Your task to perform on an android device: see tabs open on other devices in the chrome app Image 0: 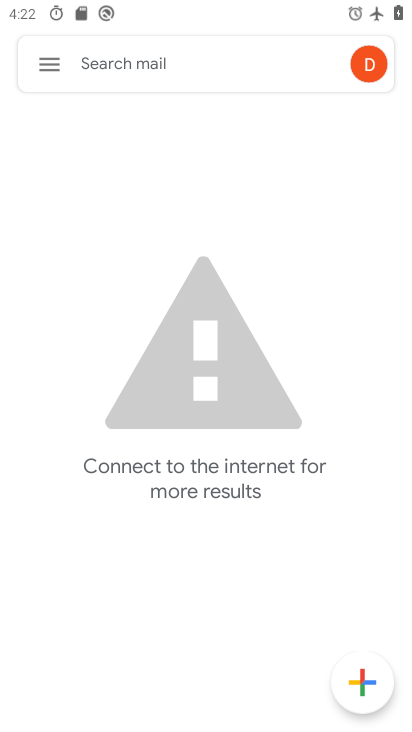
Step 0: press home button
Your task to perform on an android device: see tabs open on other devices in the chrome app Image 1: 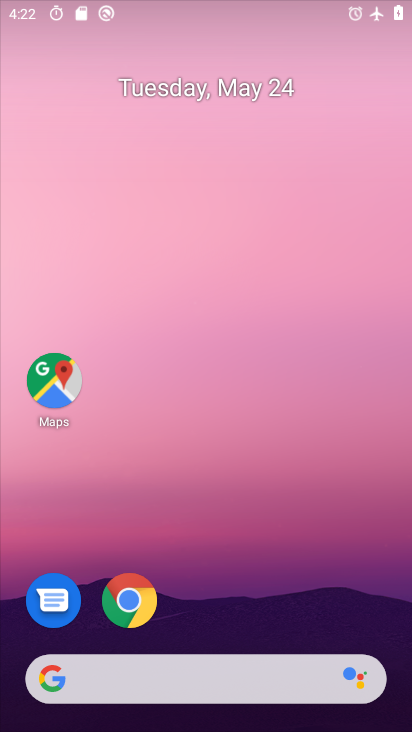
Step 1: drag from (293, 690) to (312, 48)
Your task to perform on an android device: see tabs open on other devices in the chrome app Image 2: 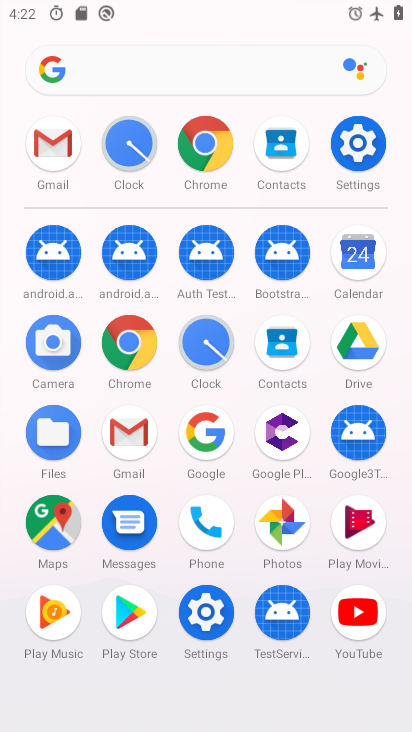
Step 2: click (114, 341)
Your task to perform on an android device: see tabs open on other devices in the chrome app Image 3: 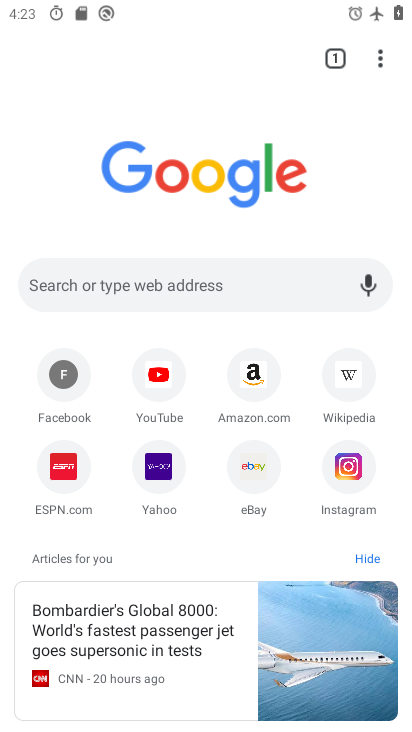
Step 3: drag from (379, 57) to (245, 283)
Your task to perform on an android device: see tabs open on other devices in the chrome app Image 4: 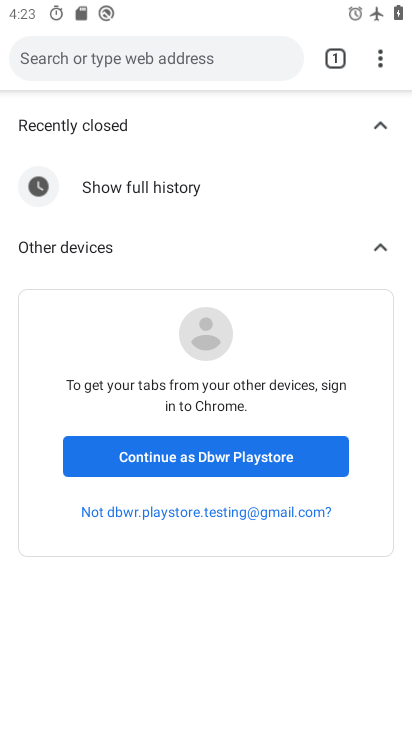
Step 4: press back button
Your task to perform on an android device: see tabs open on other devices in the chrome app Image 5: 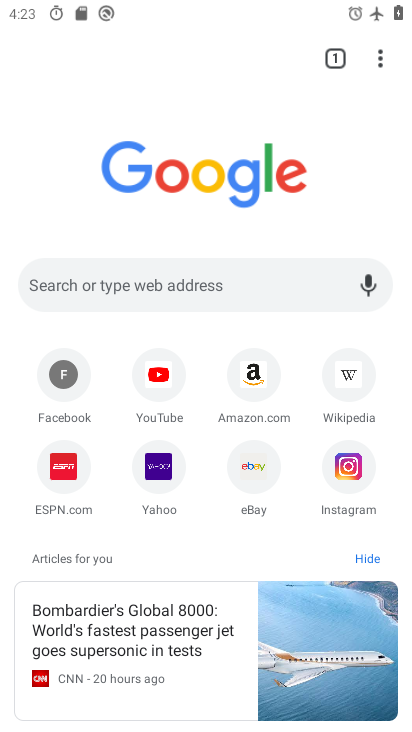
Step 5: click (386, 52)
Your task to perform on an android device: see tabs open on other devices in the chrome app Image 6: 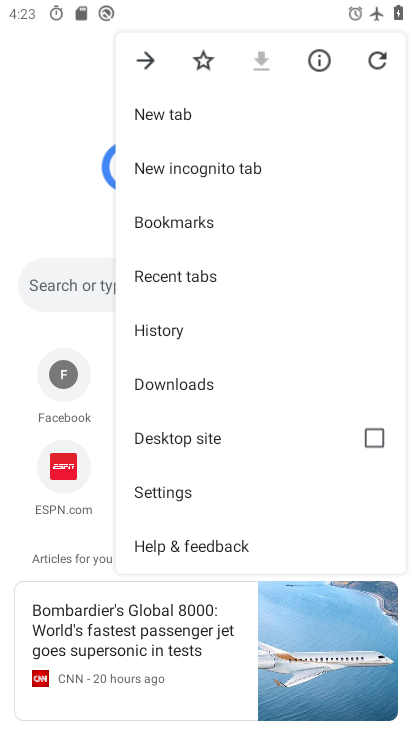
Step 6: click (203, 285)
Your task to perform on an android device: see tabs open on other devices in the chrome app Image 7: 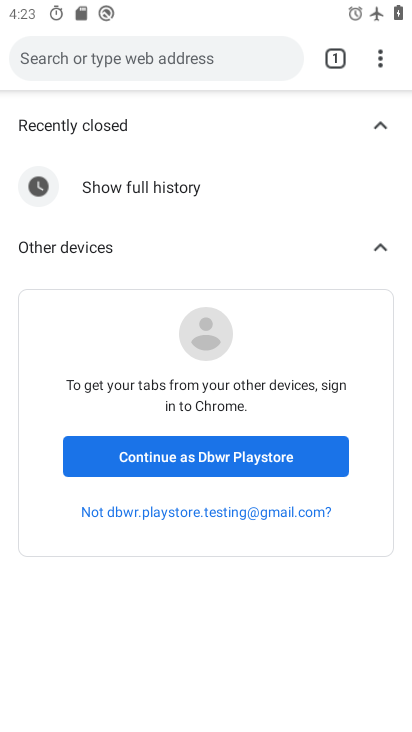
Step 7: task complete